Your task to perform on an android device: visit the assistant section in the google photos Image 0: 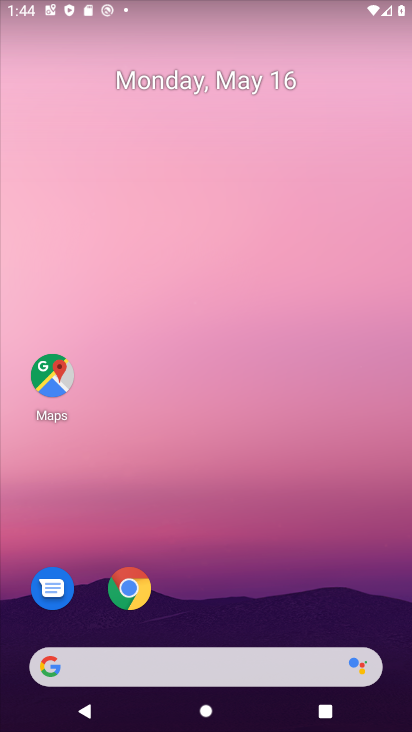
Step 0: drag from (265, 579) to (187, 39)
Your task to perform on an android device: visit the assistant section in the google photos Image 1: 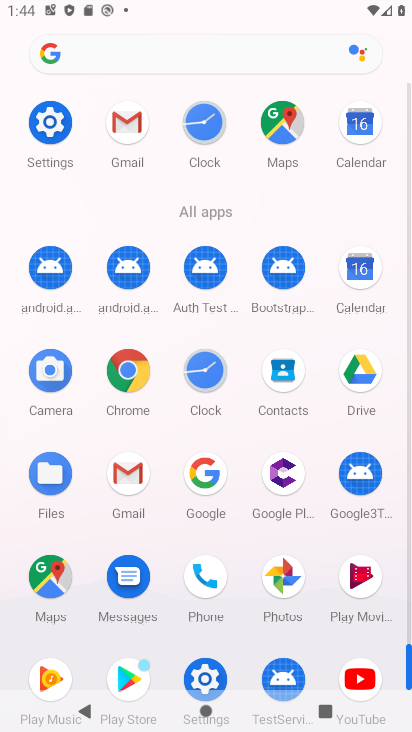
Step 1: drag from (188, 602) to (160, 405)
Your task to perform on an android device: visit the assistant section in the google photos Image 2: 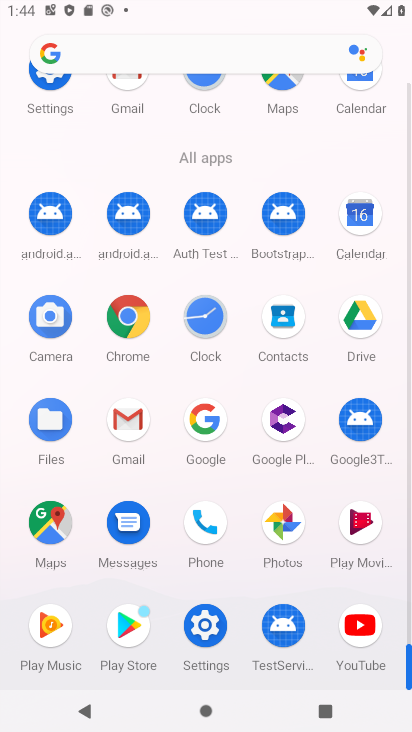
Step 2: click (279, 519)
Your task to perform on an android device: visit the assistant section in the google photos Image 3: 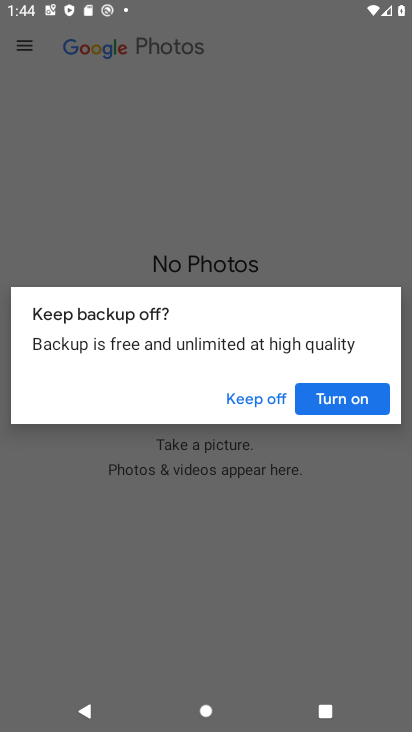
Step 3: click (338, 397)
Your task to perform on an android device: visit the assistant section in the google photos Image 4: 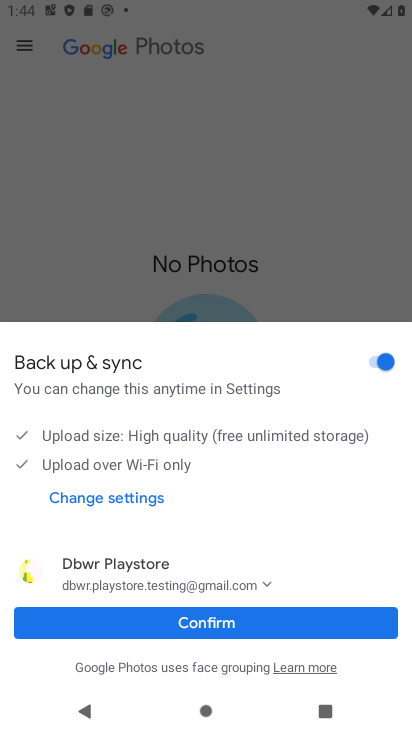
Step 4: click (239, 629)
Your task to perform on an android device: visit the assistant section in the google photos Image 5: 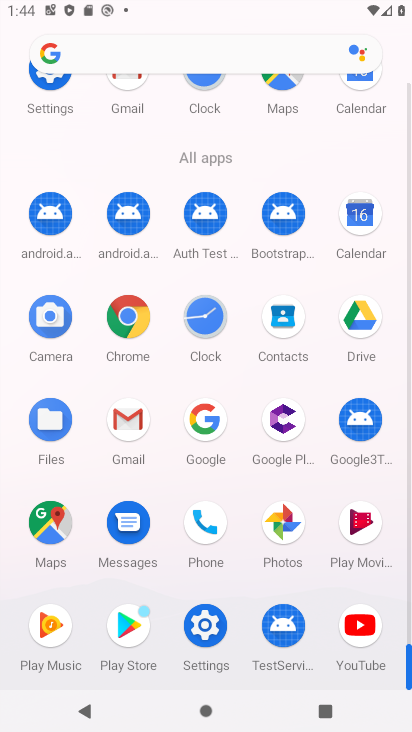
Step 5: click (288, 522)
Your task to perform on an android device: visit the assistant section in the google photos Image 6: 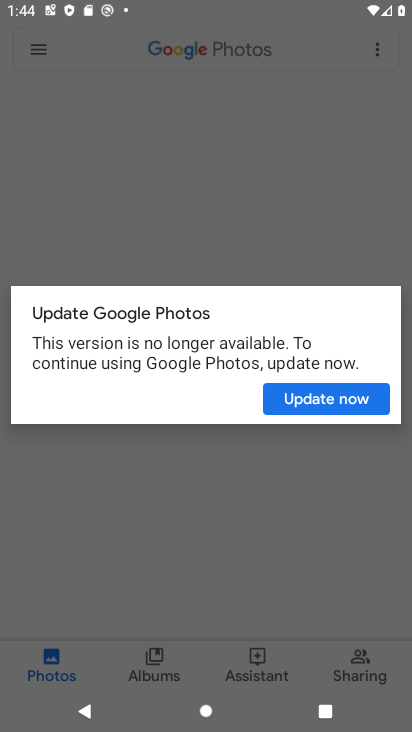
Step 6: click (290, 400)
Your task to perform on an android device: visit the assistant section in the google photos Image 7: 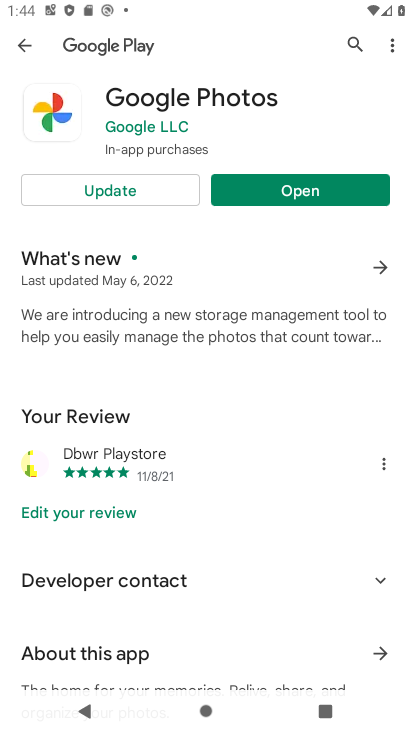
Step 7: click (132, 185)
Your task to perform on an android device: visit the assistant section in the google photos Image 8: 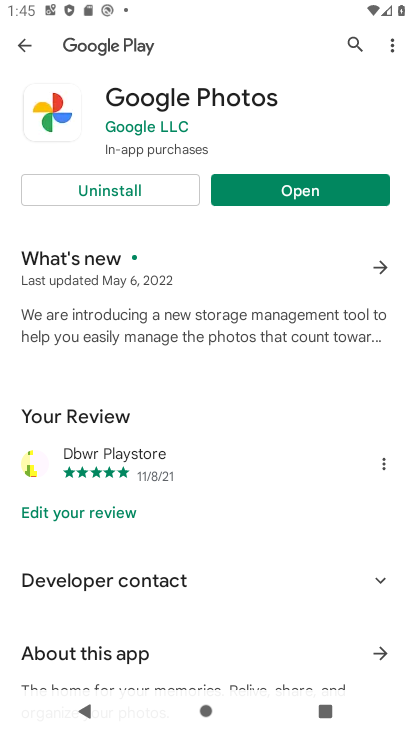
Step 8: click (275, 198)
Your task to perform on an android device: visit the assistant section in the google photos Image 9: 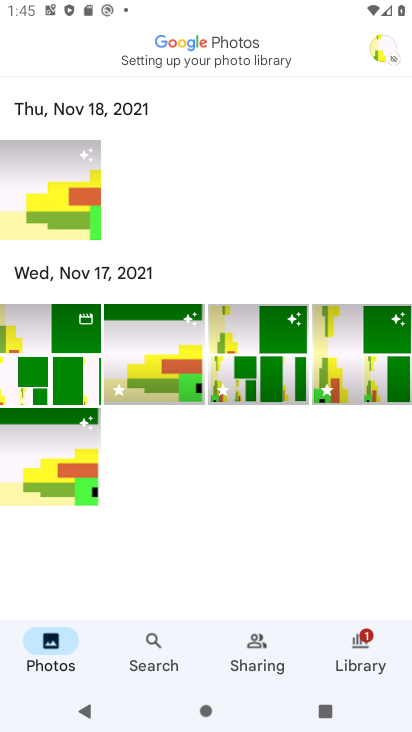
Step 9: click (387, 51)
Your task to perform on an android device: visit the assistant section in the google photos Image 10: 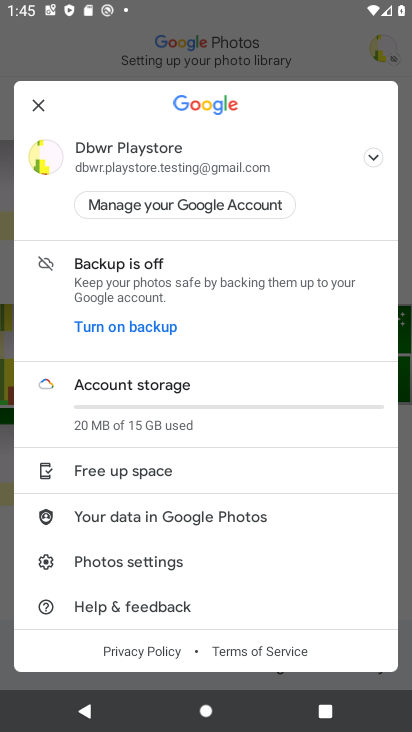
Step 10: task complete